Your task to perform on an android device: Go to privacy settings Image 0: 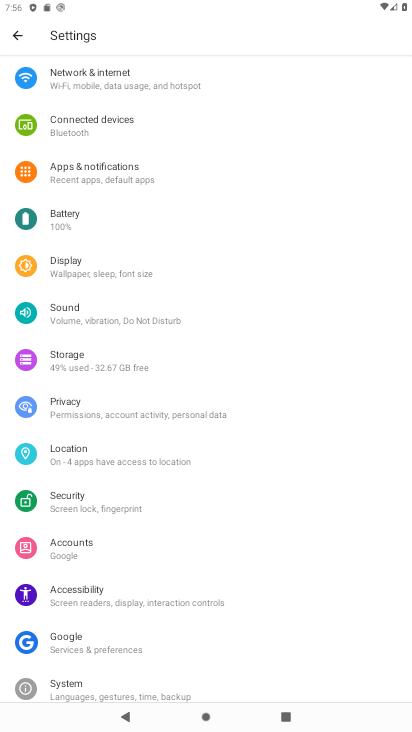
Step 0: click (111, 413)
Your task to perform on an android device: Go to privacy settings Image 1: 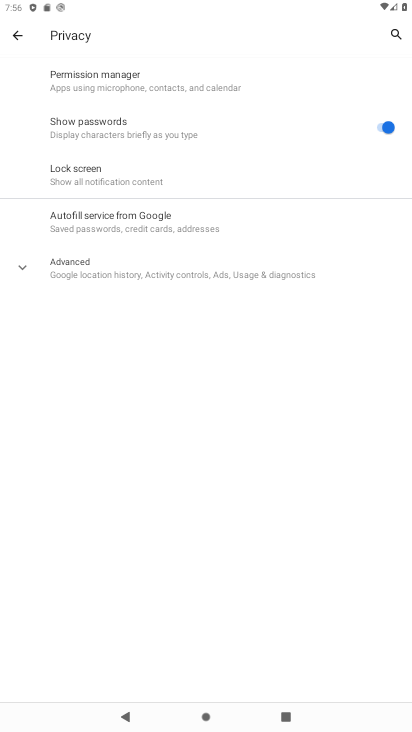
Step 1: task complete